Your task to perform on an android device: delete a single message in the gmail app Image 0: 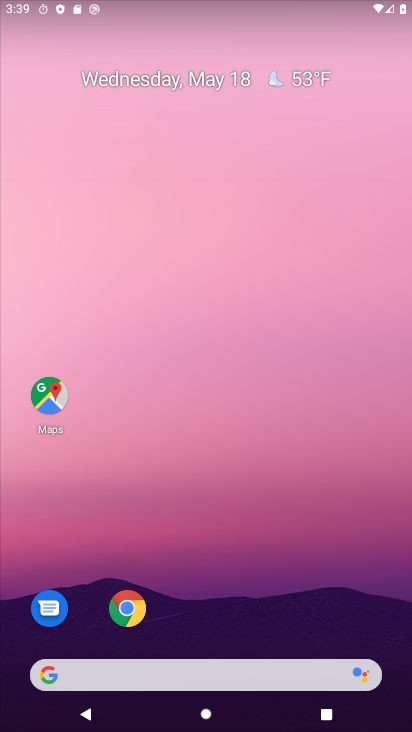
Step 0: drag from (333, 640) to (310, 18)
Your task to perform on an android device: delete a single message in the gmail app Image 1: 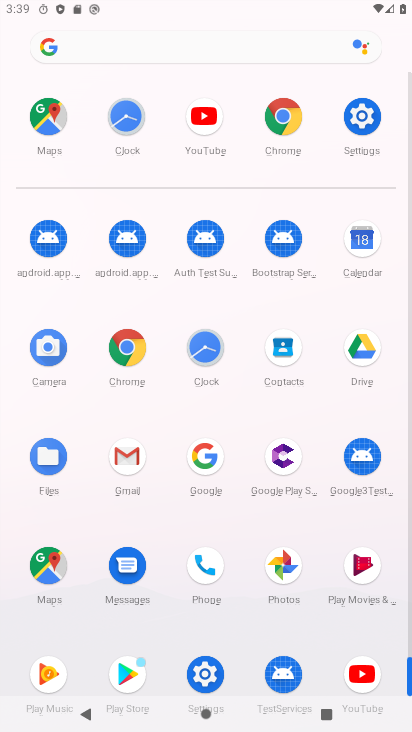
Step 1: click (129, 462)
Your task to perform on an android device: delete a single message in the gmail app Image 2: 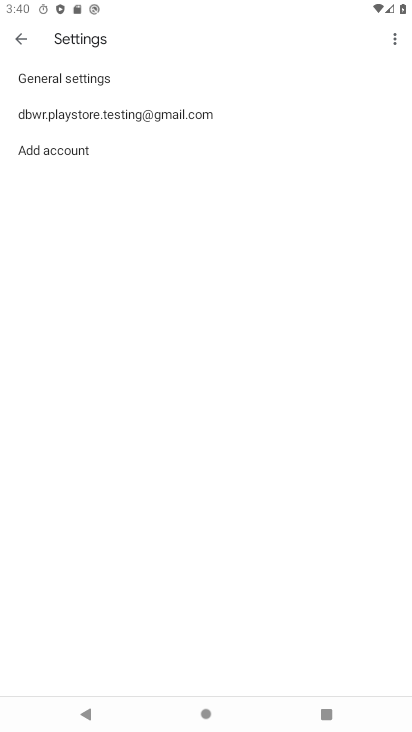
Step 2: press home button
Your task to perform on an android device: delete a single message in the gmail app Image 3: 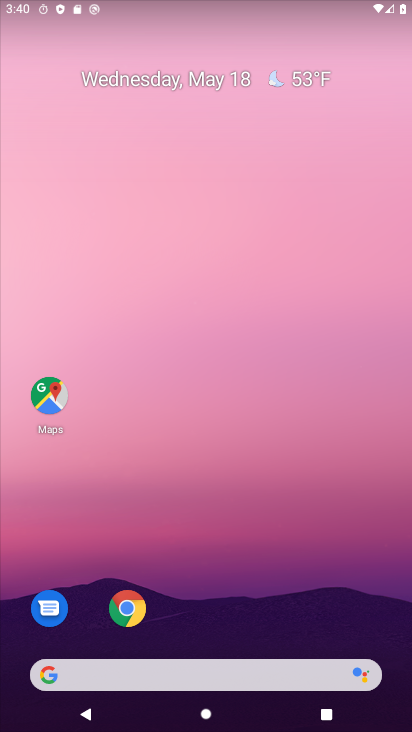
Step 3: drag from (207, 432) to (273, 21)
Your task to perform on an android device: delete a single message in the gmail app Image 4: 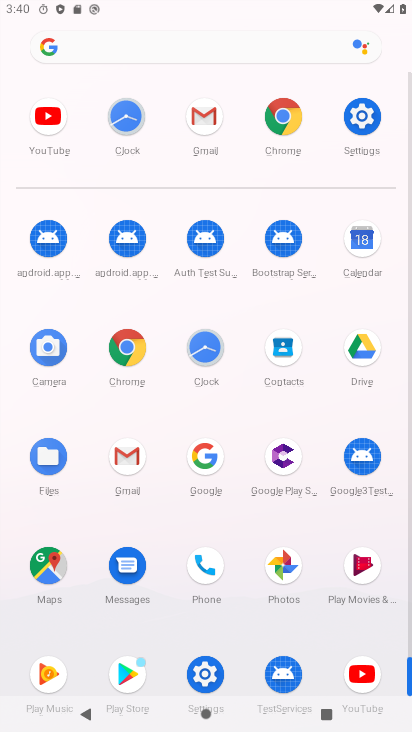
Step 4: click (127, 461)
Your task to perform on an android device: delete a single message in the gmail app Image 5: 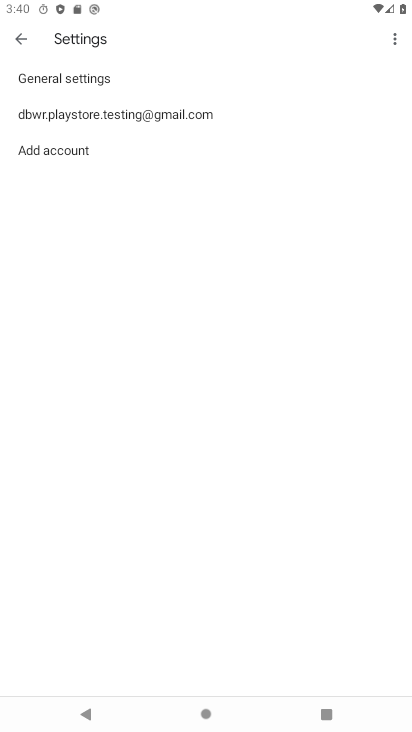
Step 5: press back button
Your task to perform on an android device: delete a single message in the gmail app Image 6: 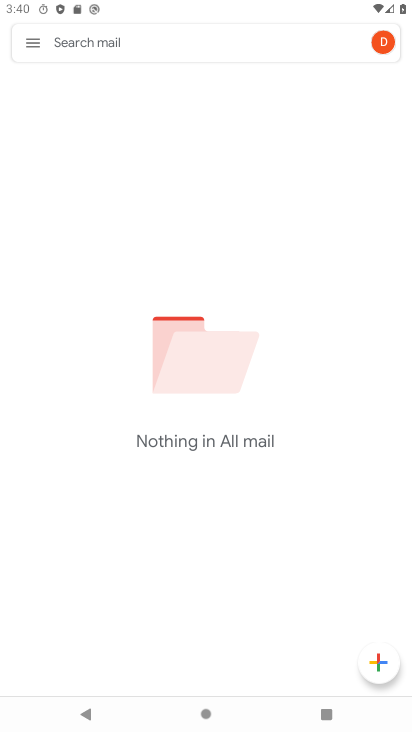
Step 6: click (31, 41)
Your task to perform on an android device: delete a single message in the gmail app Image 7: 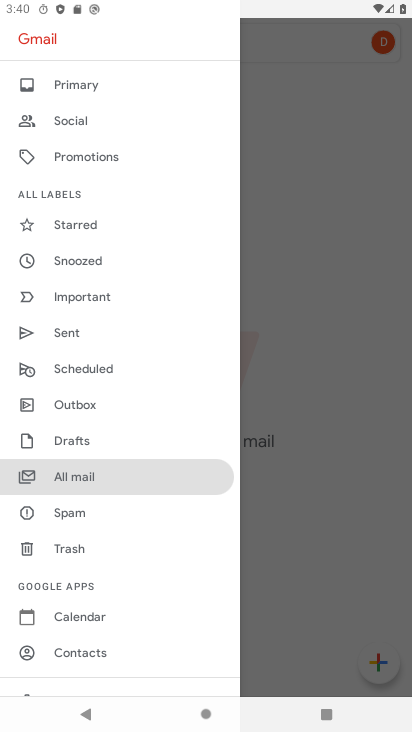
Step 7: click (89, 239)
Your task to perform on an android device: delete a single message in the gmail app Image 8: 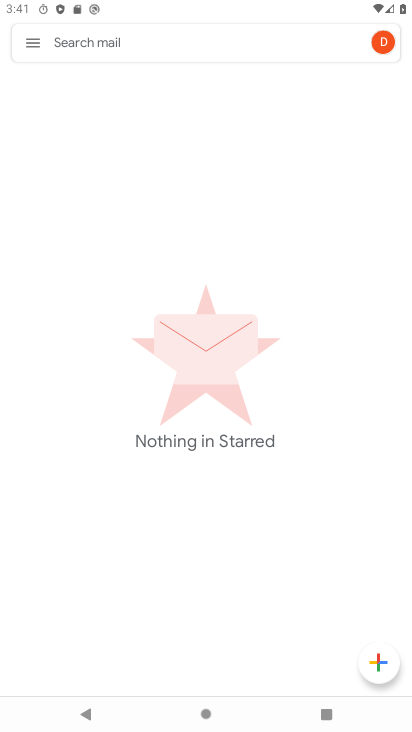
Step 8: task complete